Your task to perform on an android device: Search for "macbook pro" on newegg, select the first entry, add it to the cart, then select checkout. Image 0: 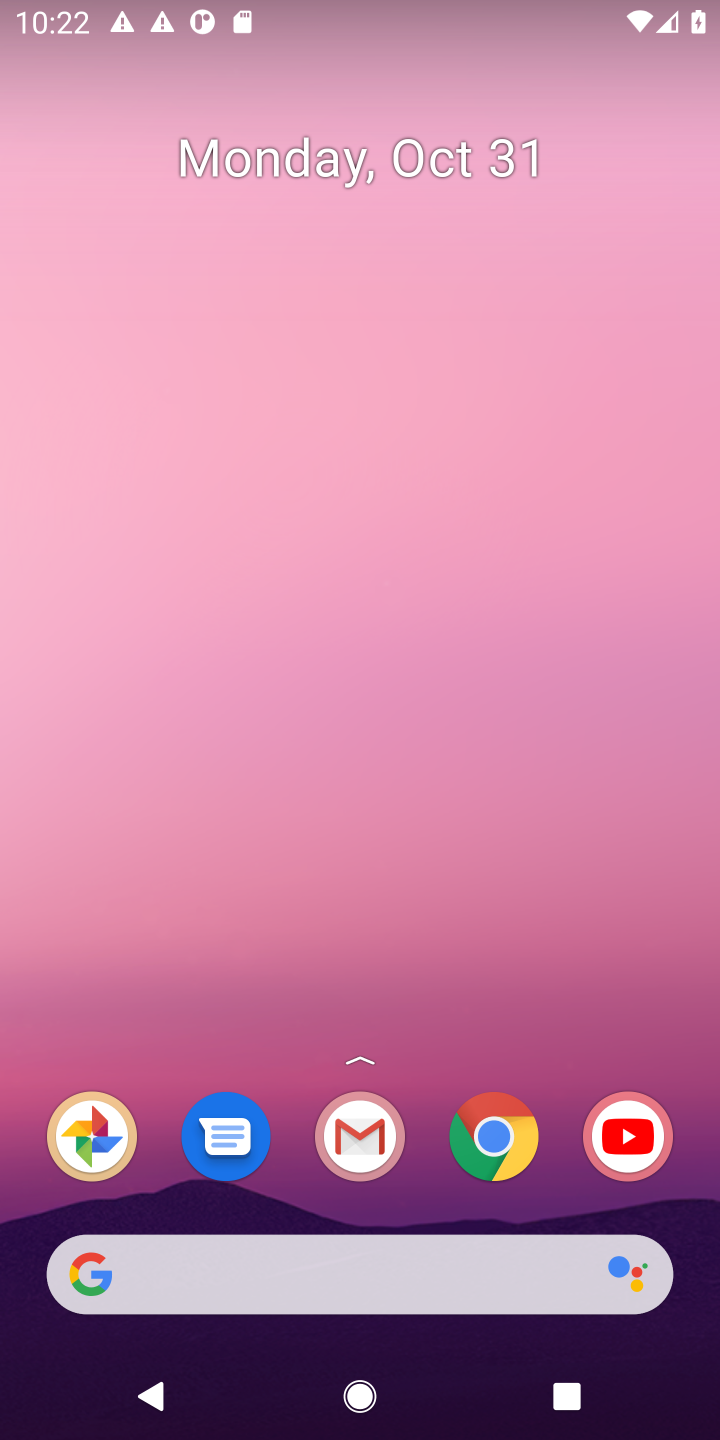
Step 0: press home button
Your task to perform on an android device: Search for "macbook pro" on newegg, select the first entry, add it to the cart, then select checkout. Image 1: 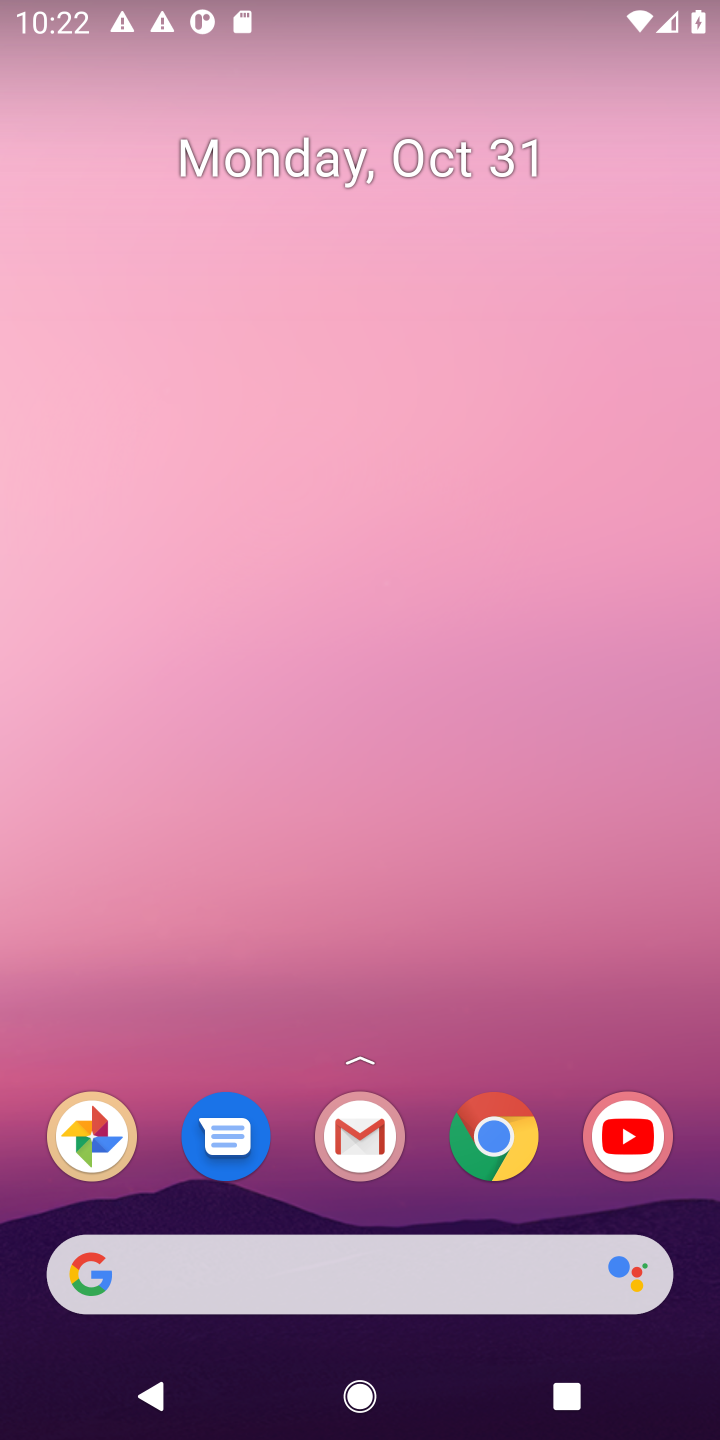
Step 1: click (123, 1265)
Your task to perform on an android device: Search for "macbook pro" on newegg, select the first entry, add it to the cart, then select checkout. Image 2: 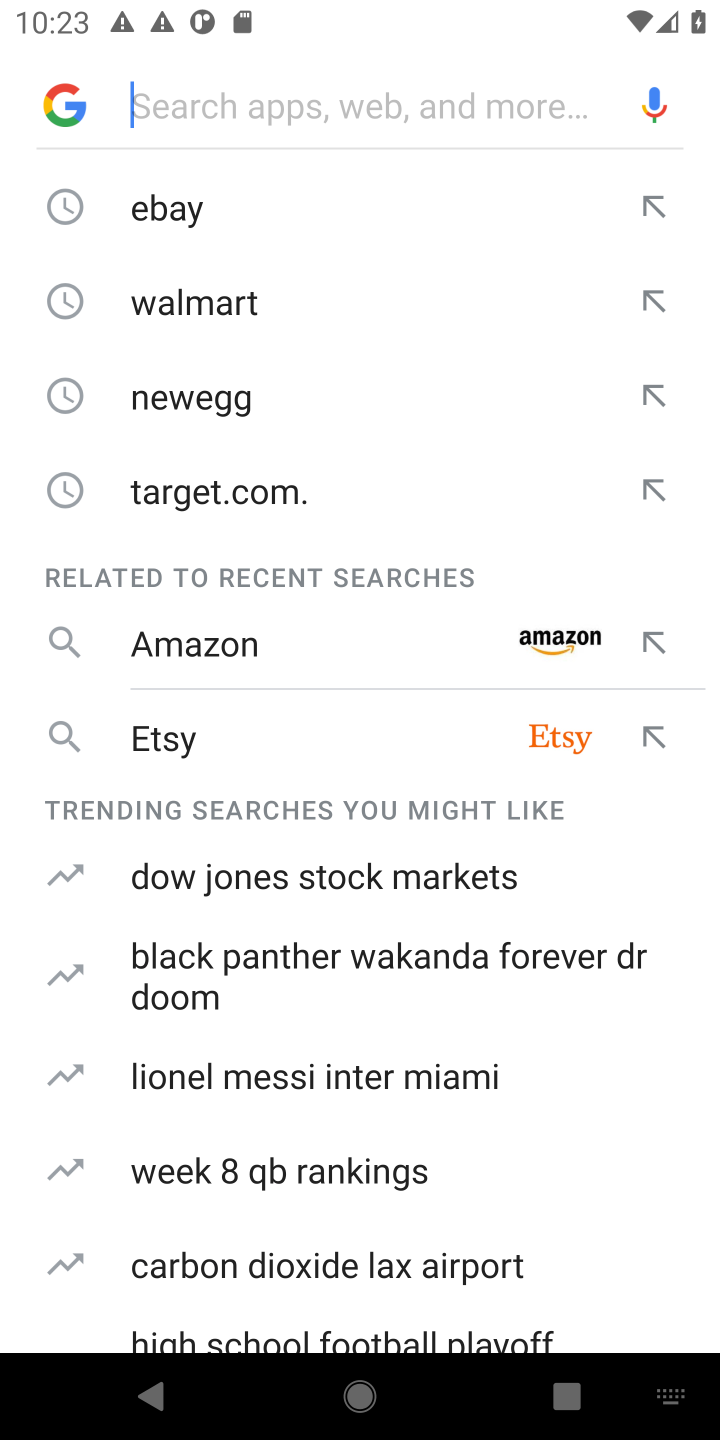
Step 2: press enter
Your task to perform on an android device: Search for "macbook pro" on newegg, select the first entry, add it to the cart, then select checkout. Image 3: 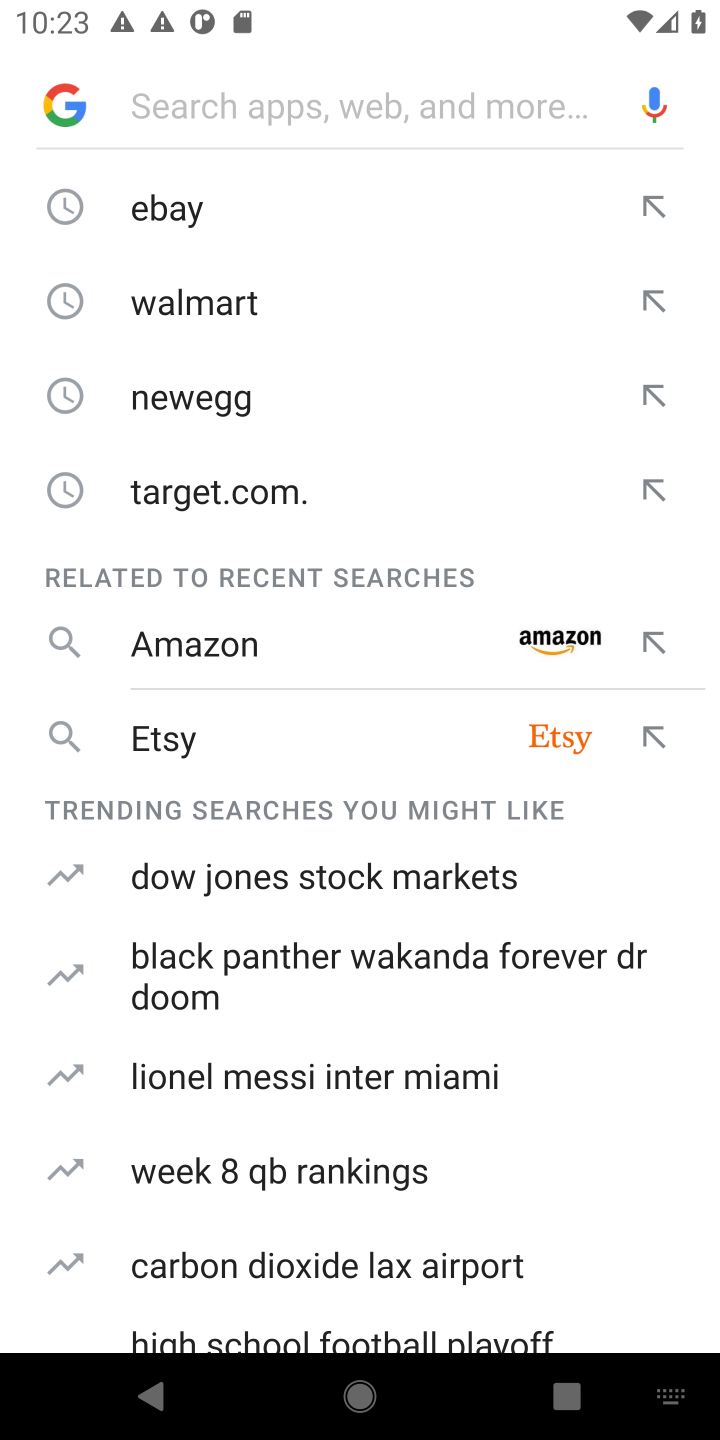
Step 3: type "newegg"
Your task to perform on an android device: Search for "macbook pro" on newegg, select the first entry, add it to the cart, then select checkout. Image 4: 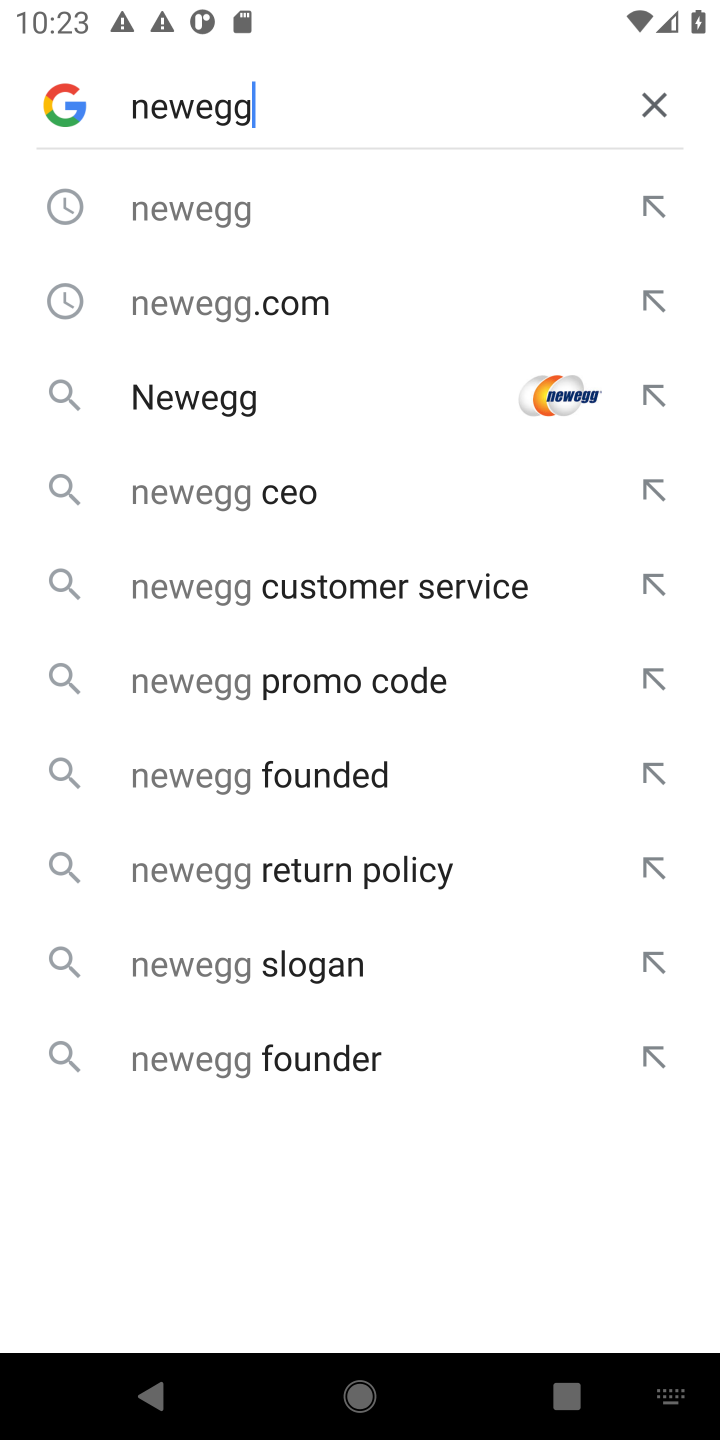
Step 4: press enter
Your task to perform on an android device: Search for "macbook pro" on newegg, select the first entry, add it to the cart, then select checkout. Image 5: 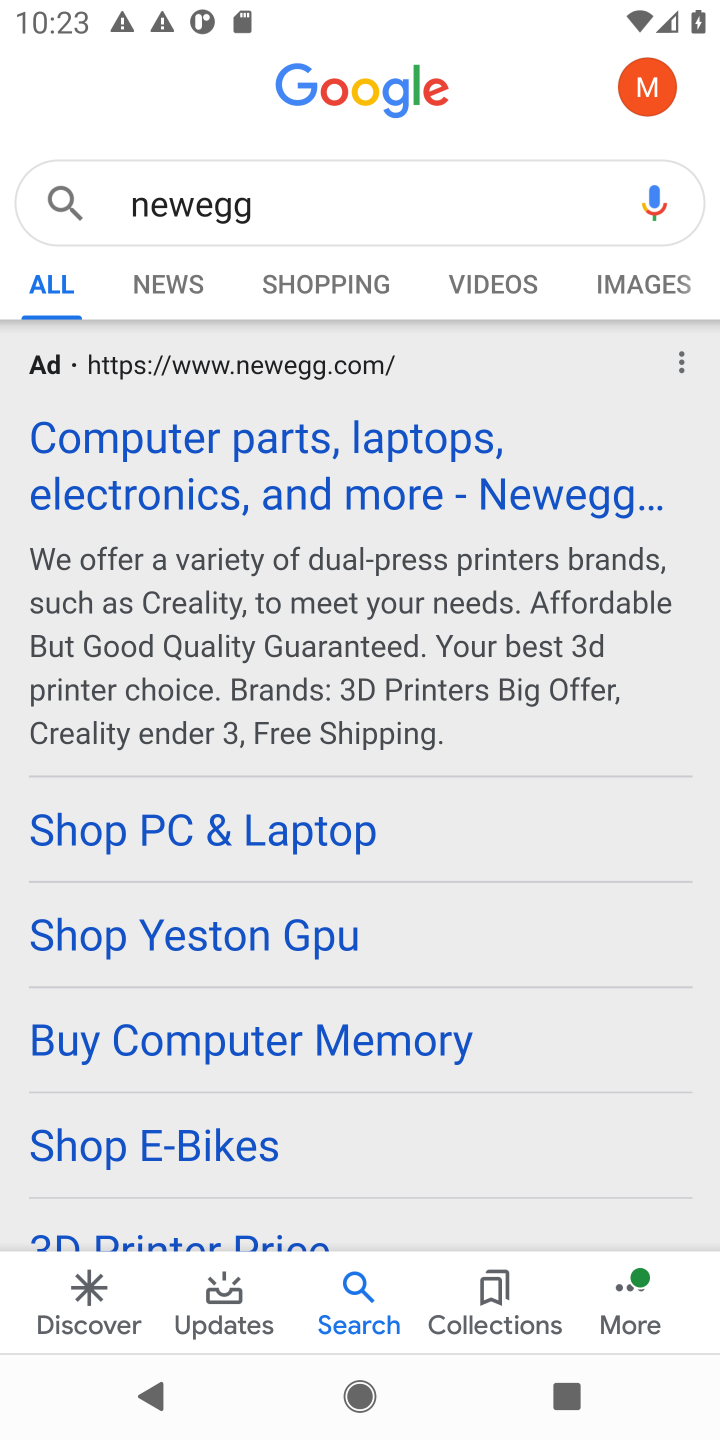
Step 5: drag from (328, 392) to (513, 356)
Your task to perform on an android device: Search for "macbook pro" on newegg, select the first entry, add it to the cart, then select checkout. Image 6: 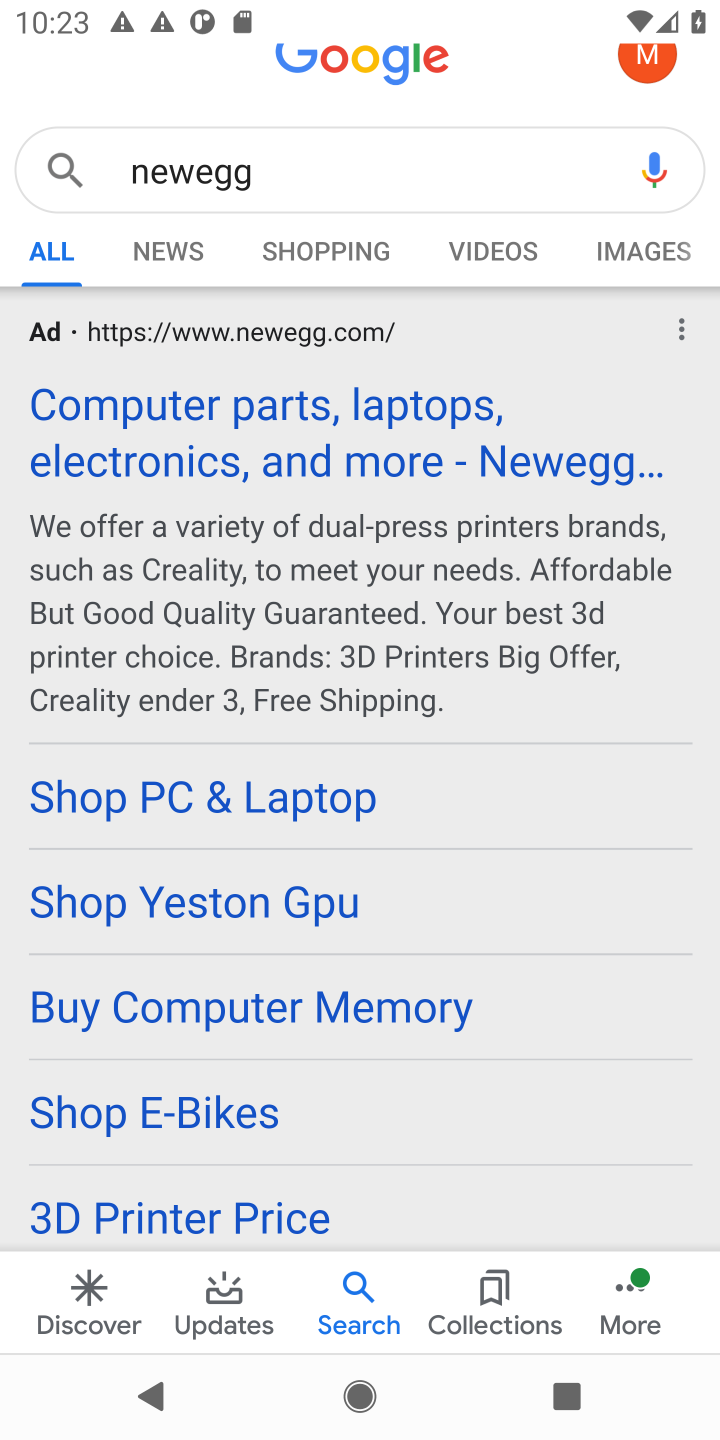
Step 6: drag from (488, 1090) to (516, 386)
Your task to perform on an android device: Search for "macbook pro" on newegg, select the first entry, add it to the cart, then select checkout. Image 7: 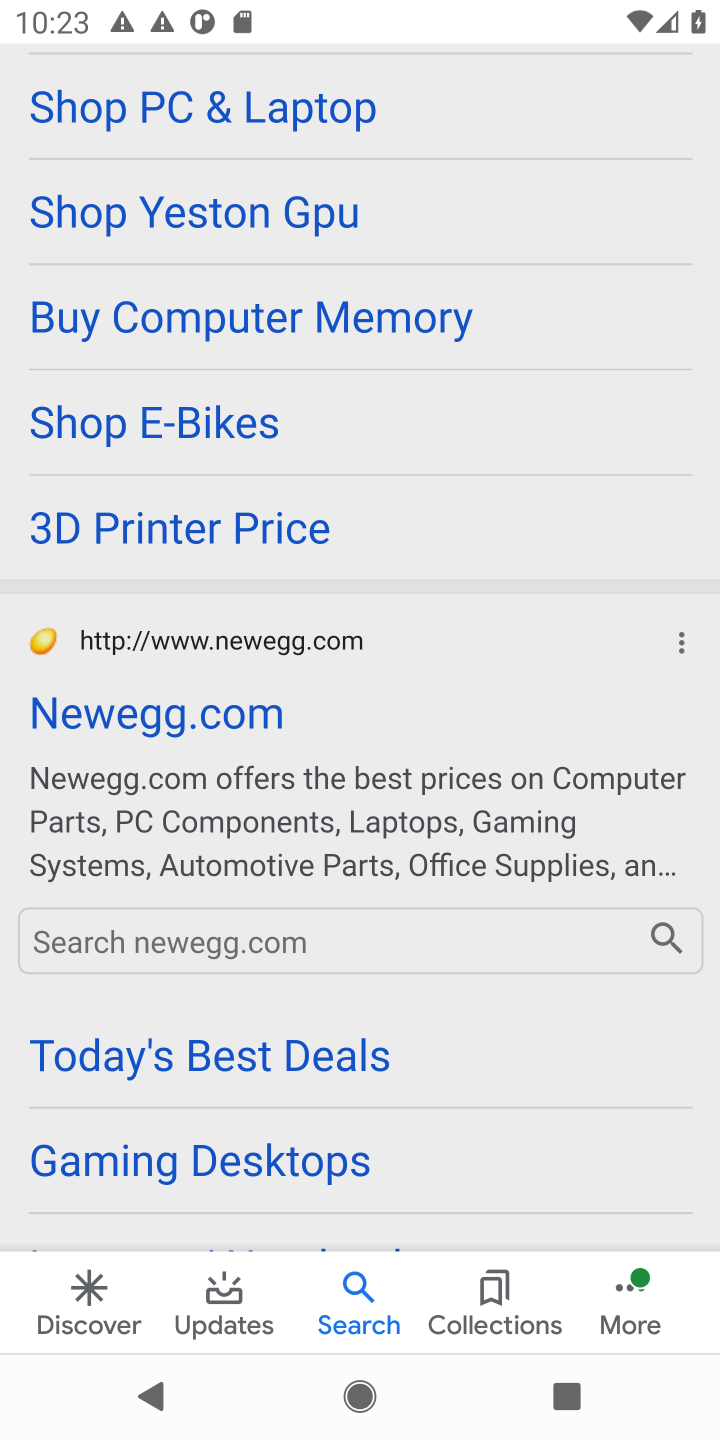
Step 7: click (175, 715)
Your task to perform on an android device: Search for "macbook pro" on newegg, select the first entry, add it to the cart, then select checkout. Image 8: 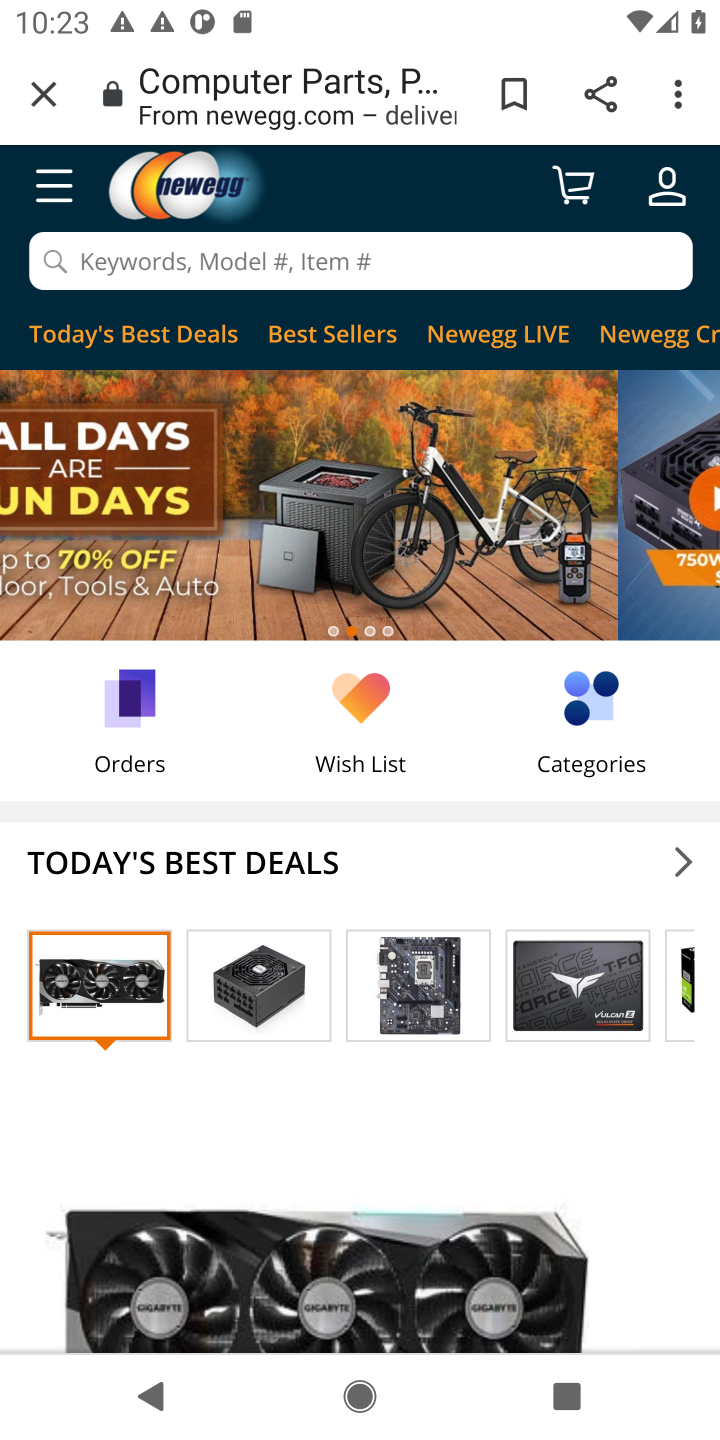
Step 8: click (84, 266)
Your task to perform on an android device: Search for "macbook pro" on newegg, select the first entry, add it to the cart, then select checkout. Image 9: 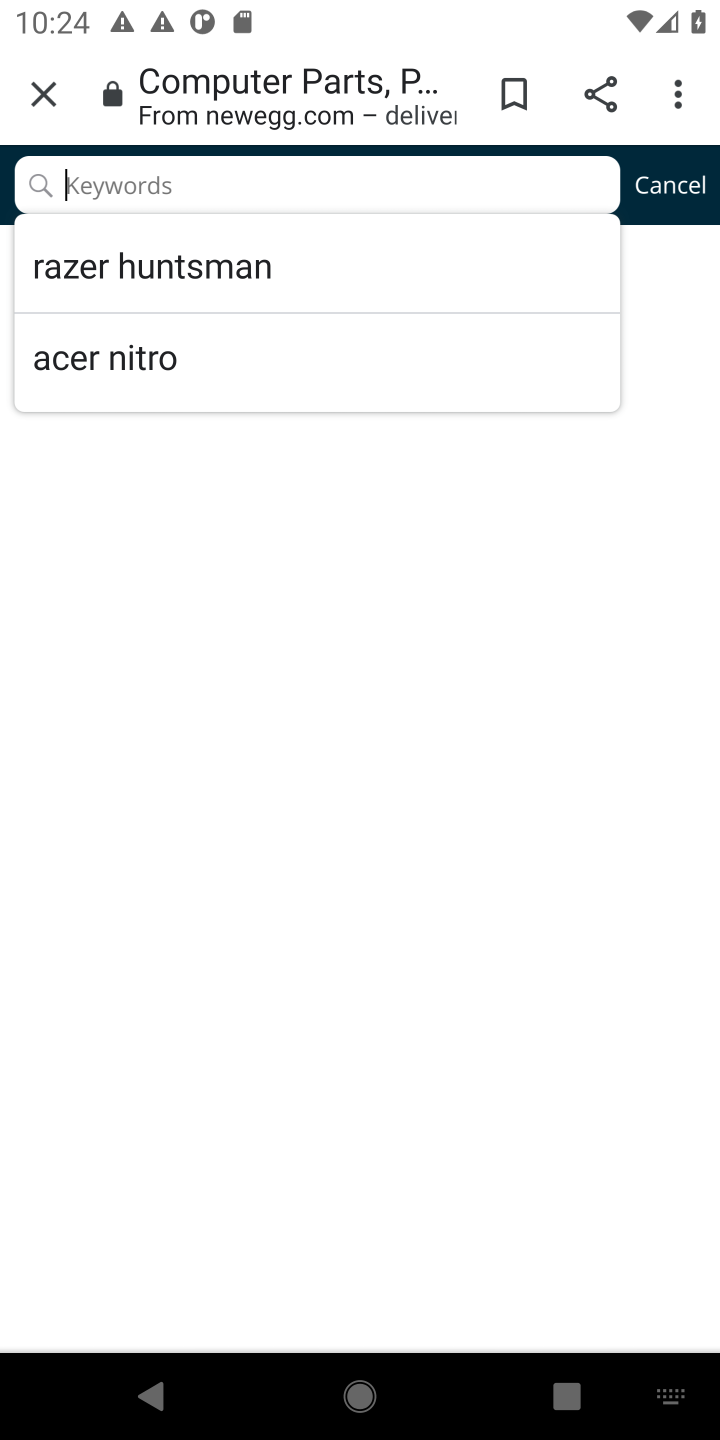
Step 9: type "macbook pro"
Your task to perform on an android device: Search for "macbook pro" on newegg, select the first entry, add it to the cart, then select checkout. Image 10: 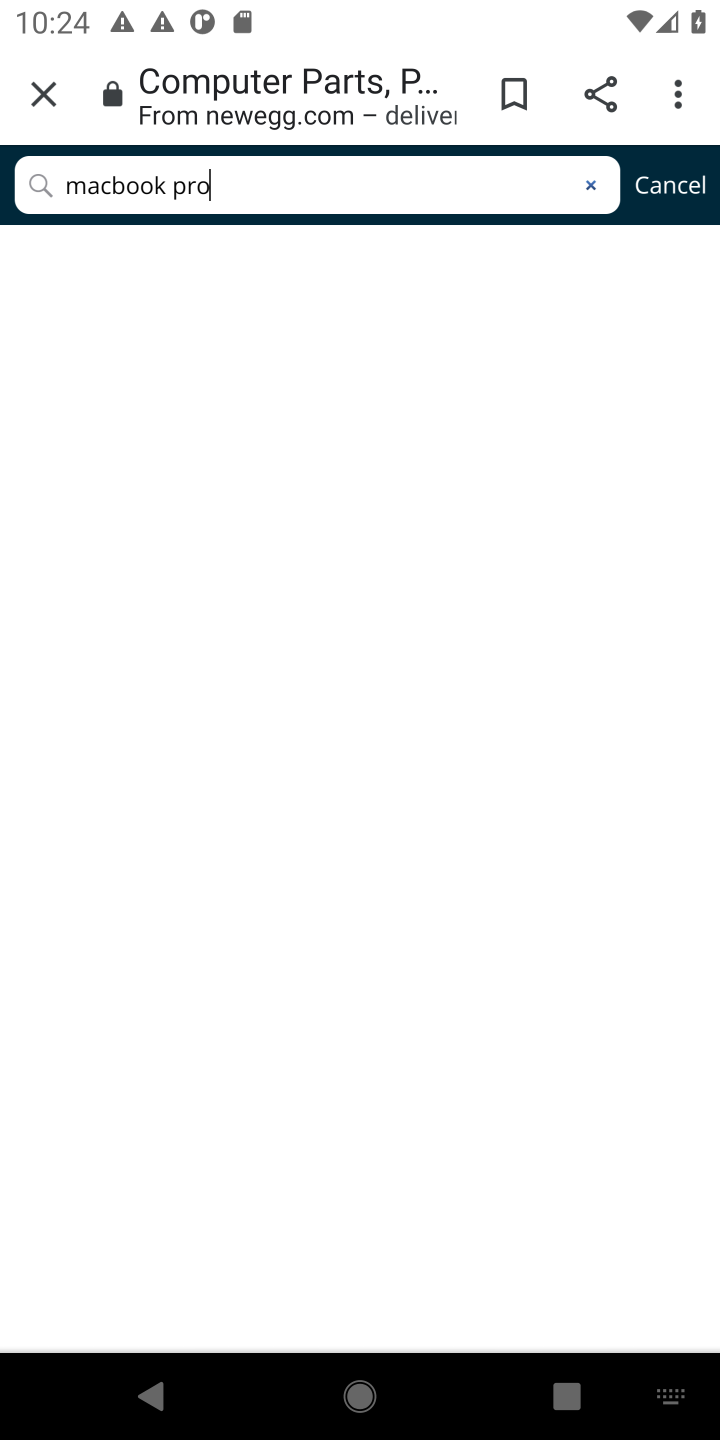
Step 10: press enter
Your task to perform on an android device: Search for "macbook pro" on newegg, select the first entry, add it to the cart, then select checkout. Image 11: 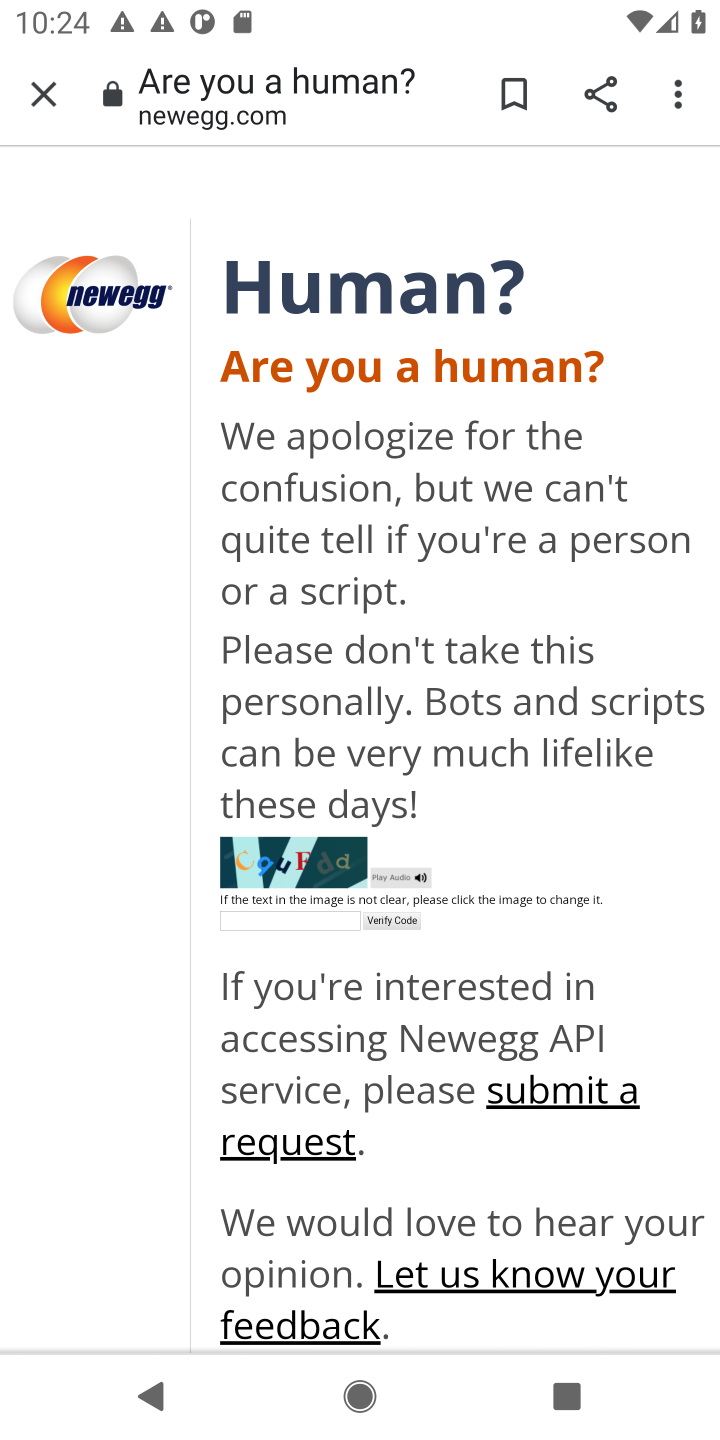
Step 11: task complete